Your task to perform on an android device: set default search engine in the chrome app Image 0: 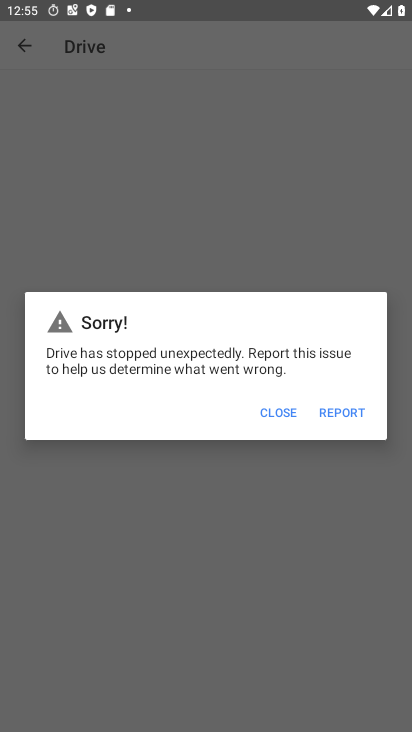
Step 0: press home button
Your task to perform on an android device: set default search engine in the chrome app Image 1: 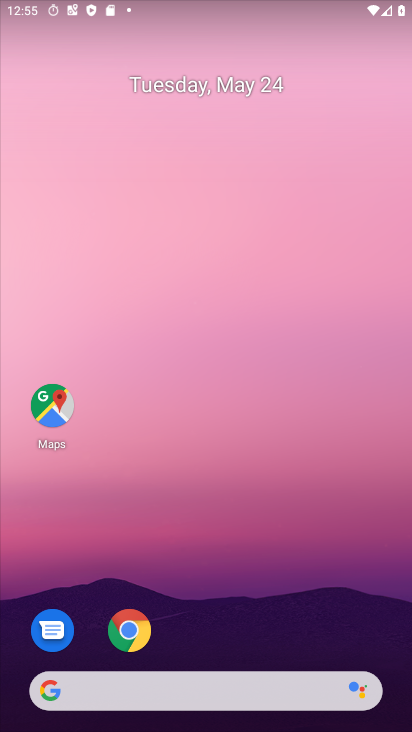
Step 1: click (126, 640)
Your task to perform on an android device: set default search engine in the chrome app Image 2: 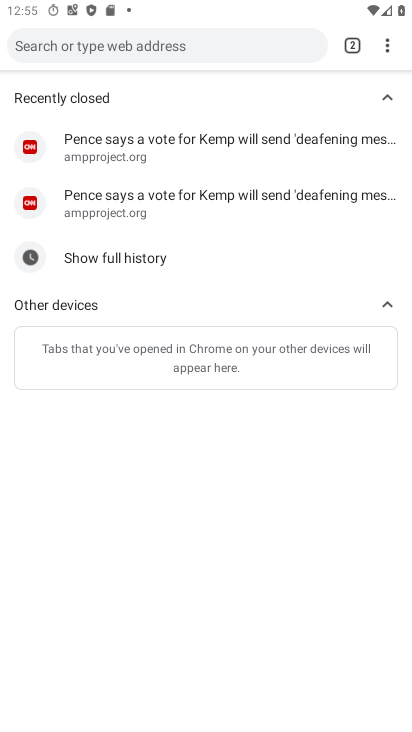
Step 2: click (390, 49)
Your task to perform on an android device: set default search engine in the chrome app Image 3: 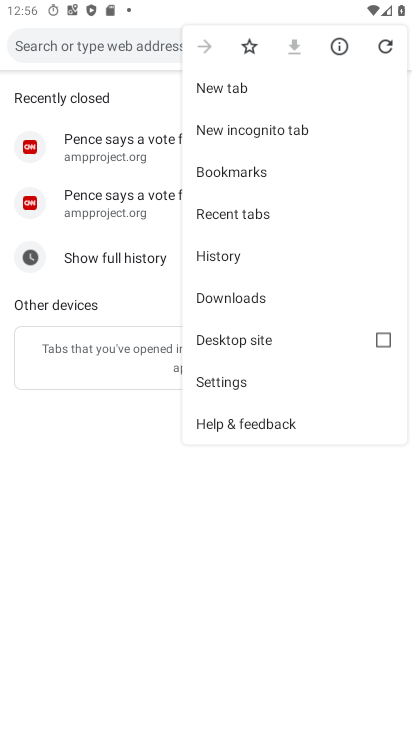
Step 3: click (220, 377)
Your task to perform on an android device: set default search engine in the chrome app Image 4: 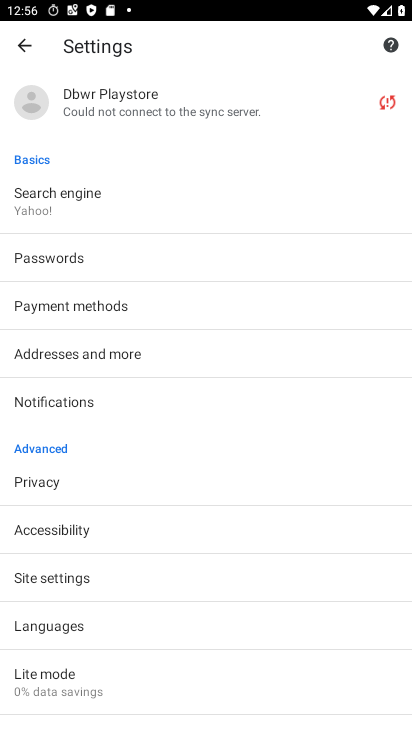
Step 4: click (41, 199)
Your task to perform on an android device: set default search engine in the chrome app Image 5: 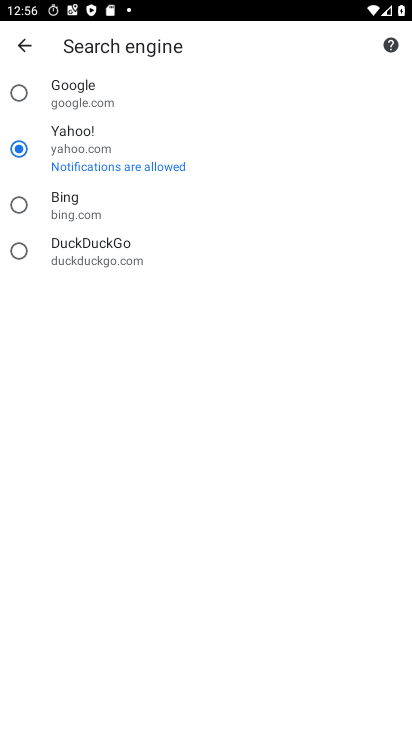
Step 5: click (15, 205)
Your task to perform on an android device: set default search engine in the chrome app Image 6: 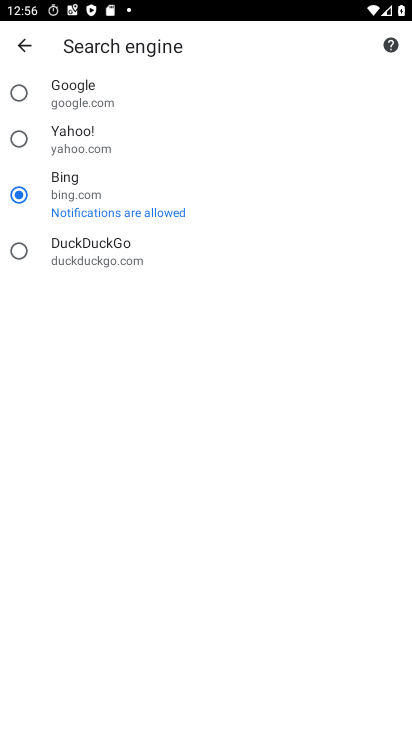
Step 6: task complete